Your task to perform on an android device: create a new album in the google photos Image 0: 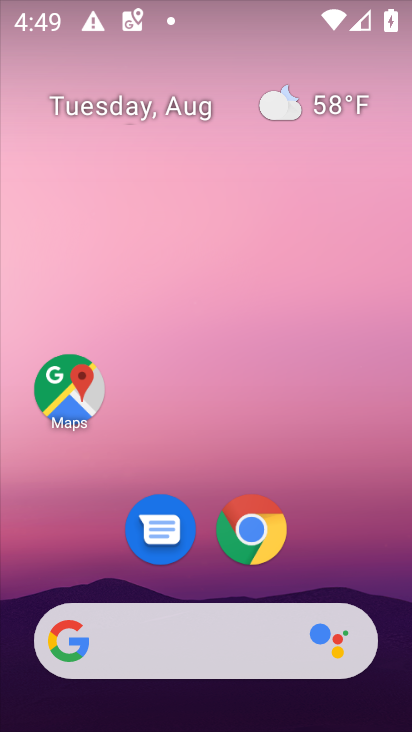
Step 0: drag from (196, 472) to (249, 19)
Your task to perform on an android device: create a new album in the google photos Image 1: 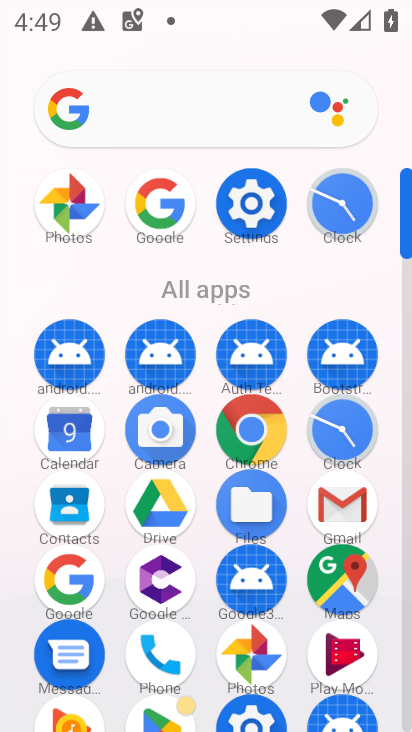
Step 1: click (74, 237)
Your task to perform on an android device: create a new album in the google photos Image 2: 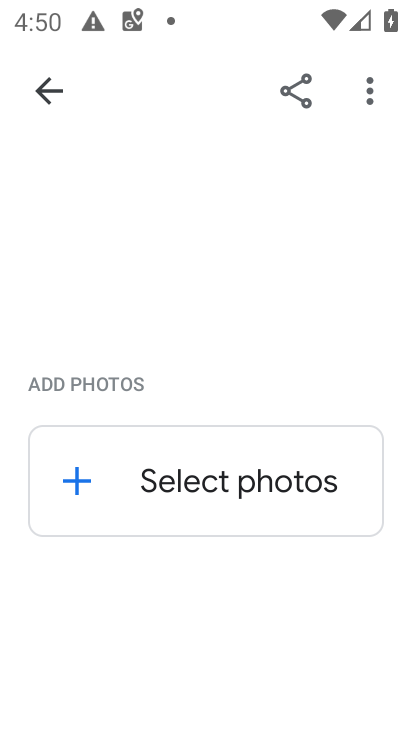
Step 2: task complete